Your task to perform on an android device: Open ESPN.com Image 0: 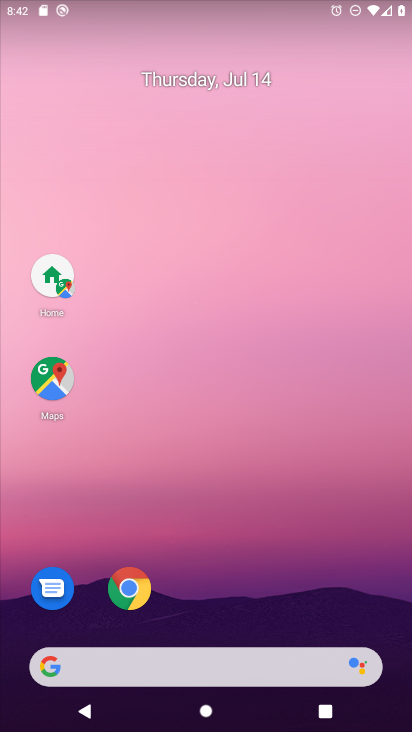
Step 0: click (90, 666)
Your task to perform on an android device: Open ESPN.com Image 1: 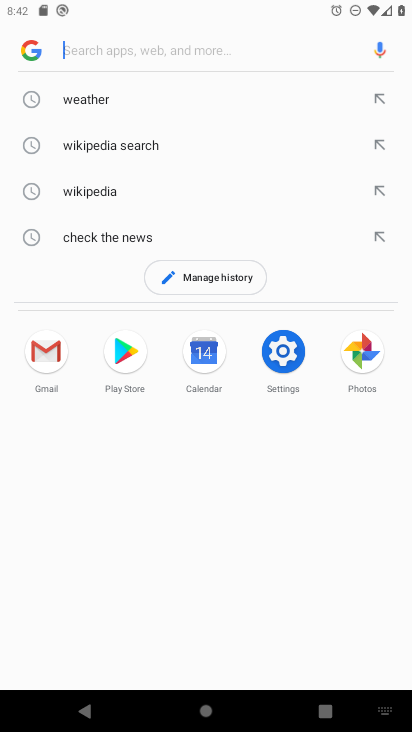
Step 1: type "ESPN.com"
Your task to perform on an android device: Open ESPN.com Image 2: 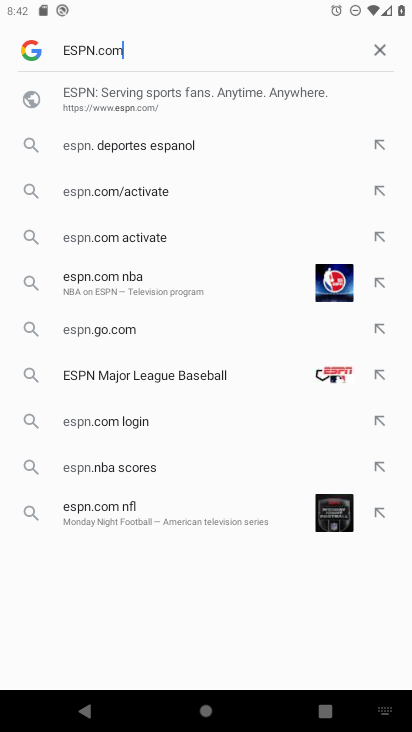
Step 2: type ""
Your task to perform on an android device: Open ESPN.com Image 3: 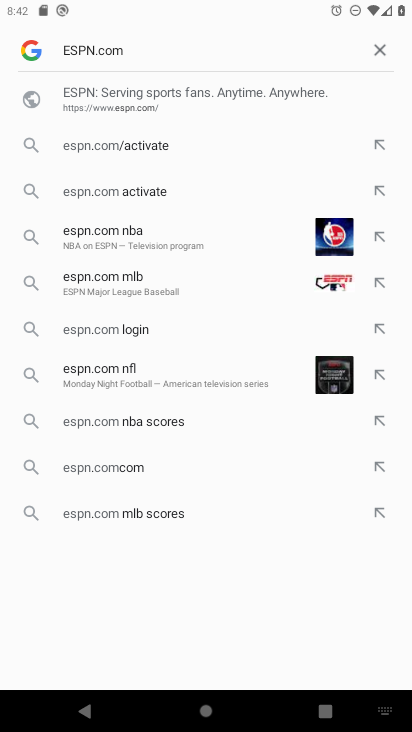
Step 3: click (139, 107)
Your task to perform on an android device: Open ESPN.com Image 4: 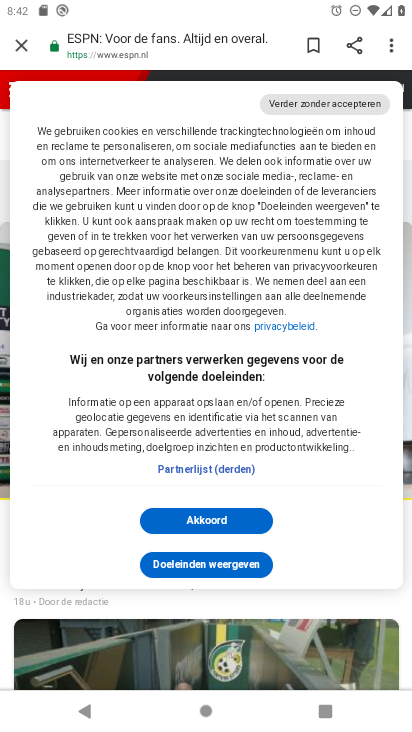
Step 4: task complete